Your task to perform on an android device: add a contact in the contacts app Image 0: 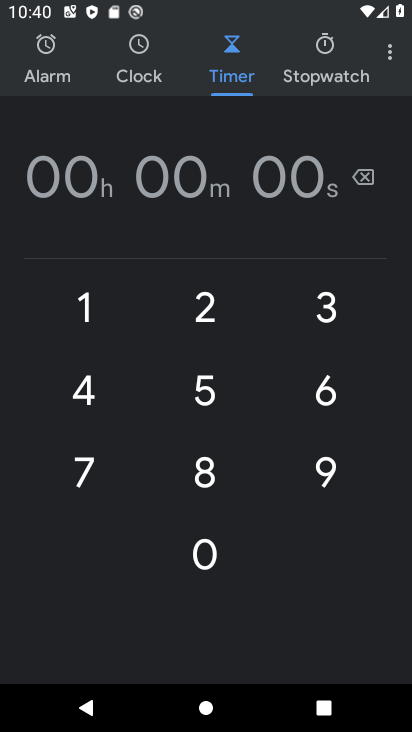
Step 0: press home button
Your task to perform on an android device: add a contact in the contacts app Image 1: 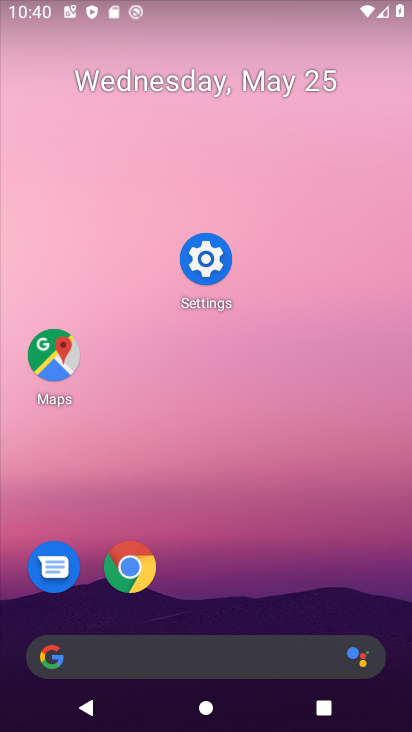
Step 1: drag from (245, 573) to (342, 0)
Your task to perform on an android device: add a contact in the contacts app Image 2: 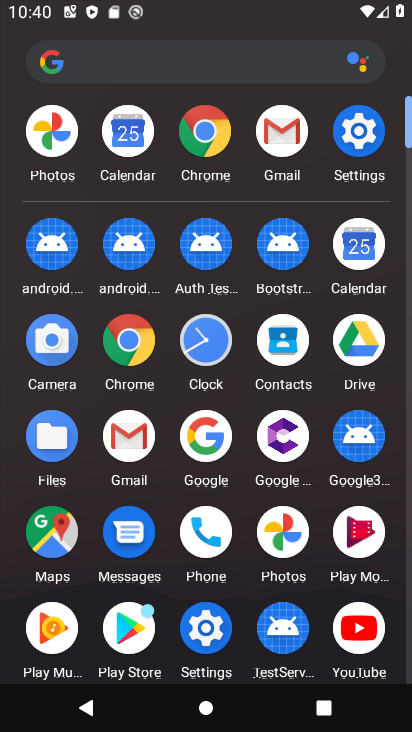
Step 2: click (407, 421)
Your task to perform on an android device: add a contact in the contacts app Image 3: 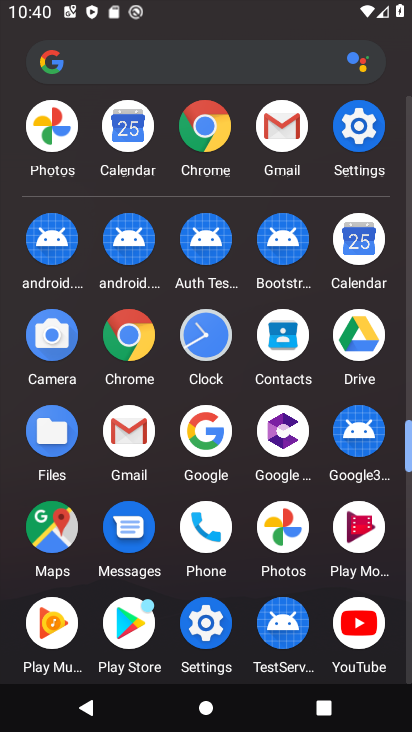
Step 3: click (407, 531)
Your task to perform on an android device: add a contact in the contacts app Image 4: 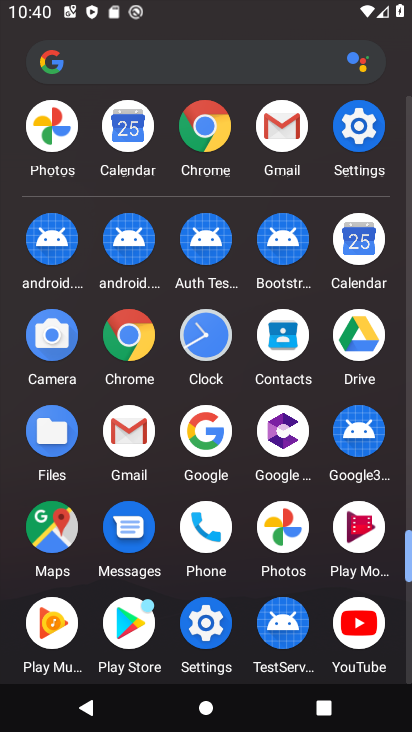
Step 4: click (299, 341)
Your task to perform on an android device: add a contact in the contacts app Image 5: 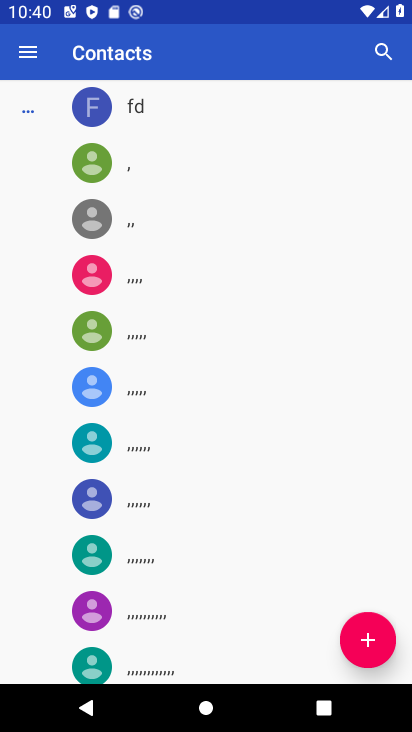
Step 5: click (380, 648)
Your task to perform on an android device: add a contact in the contacts app Image 6: 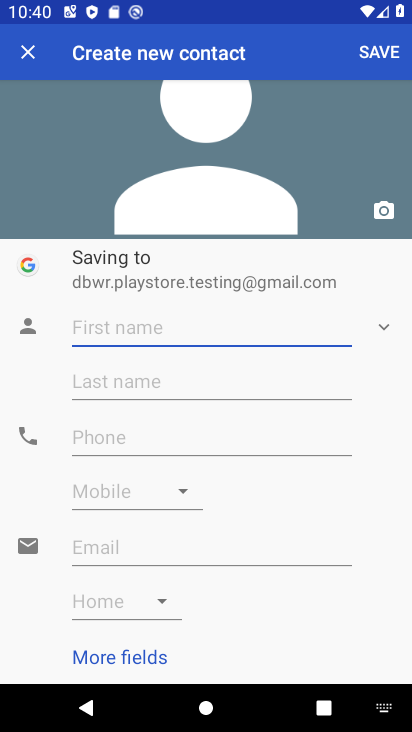
Step 6: type "asdasdas"
Your task to perform on an android device: add a contact in the contacts app Image 7: 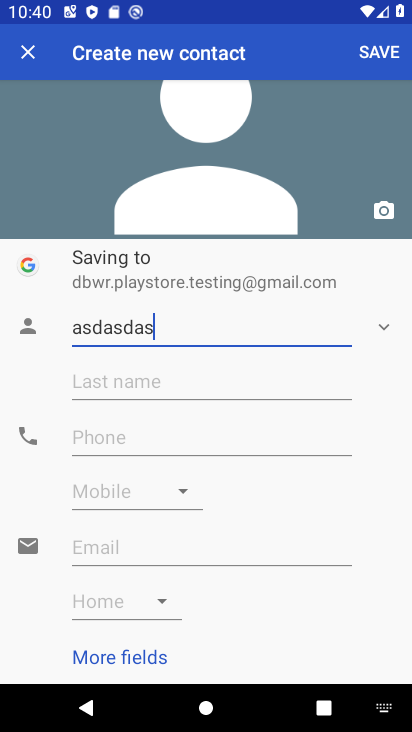
Step 7: click (398, 42)
Your task to perform on an android device: add a contact in the contacts app Image 8: 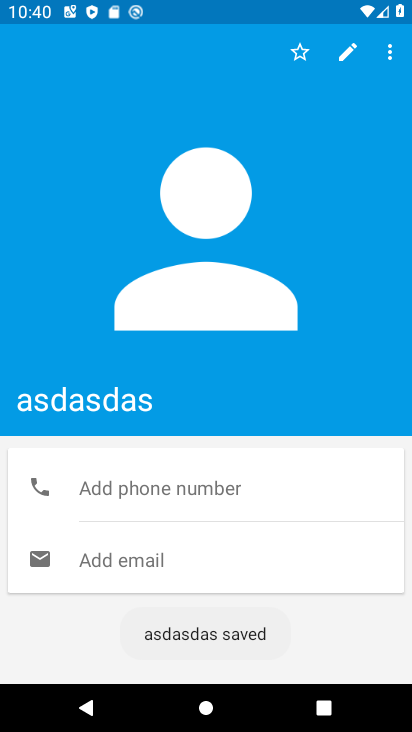
Step 8: task complete